Your task to perform on an android device: turn on wifi Image 0: 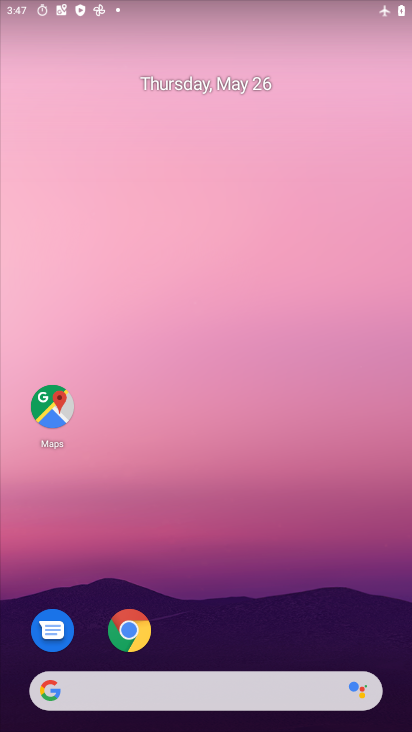
Step 0: drag from (243, 646) to (213, 1)
Your task to perform on an android device: turn on wifi Image 1: 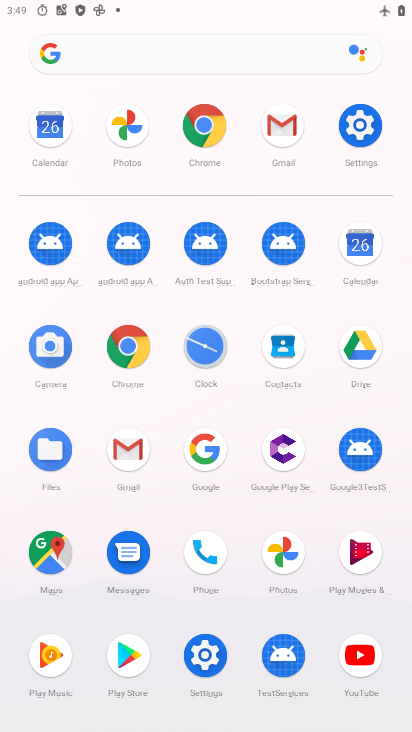
Step 1: click (365, 114)
Your task to perform on an android device: turn on wifi Image 2: 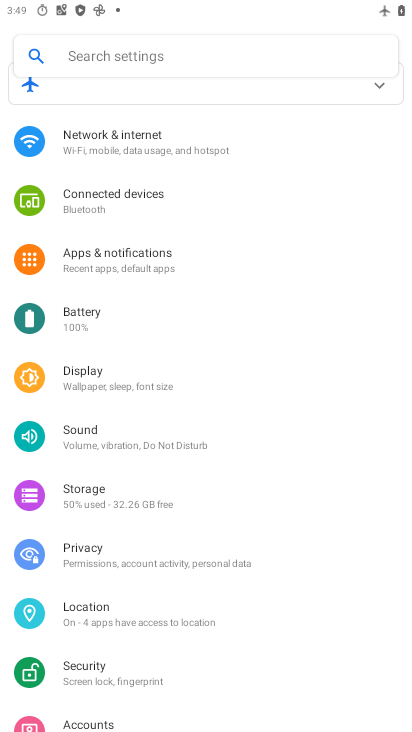
Step 2: click (135, 140)
Your task to perform on an android device: turn on wifi Image 3: 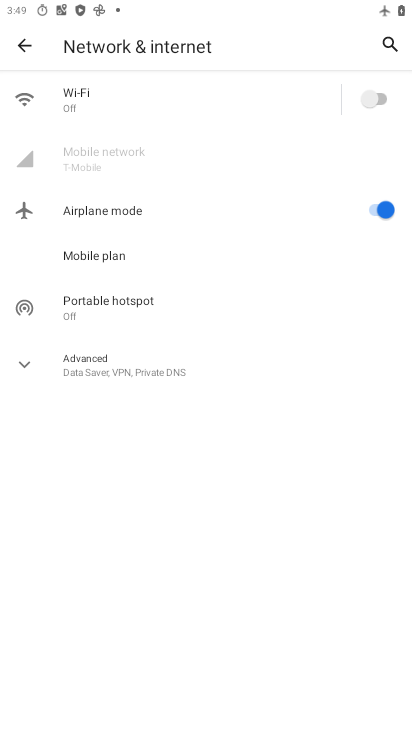
Step 3: click (373, 90)
Your task to perform on an android device: turn on wifi Image 4: 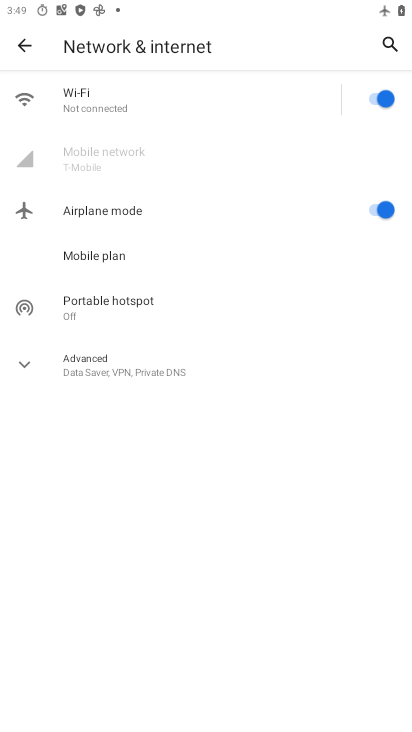
Step 4: task complete